Your task to perform on an android device: Search for seafood restaurants on Google Maps Image 0: 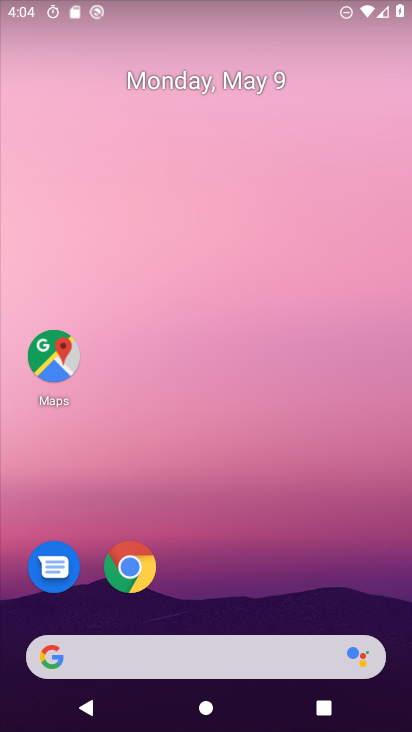
Step 0: click (55, 353)
Your task to perform on an android device: Search for seafood restaurants on Google Maps Image 1: 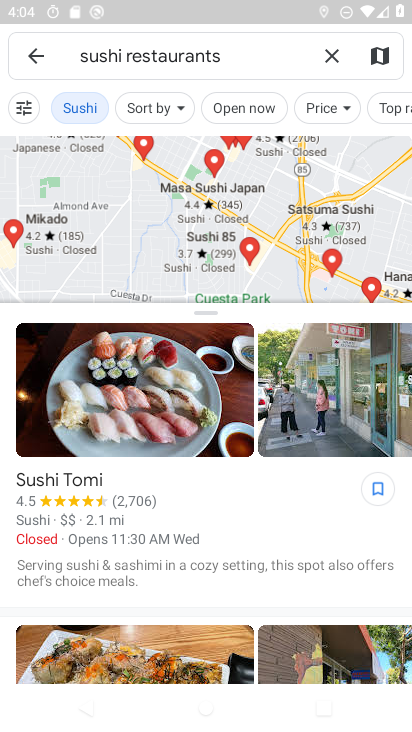
Step 1: click (333, 50)
Your task to perform on an android device: Search for seafood restaurants on Google Maps Image 2: 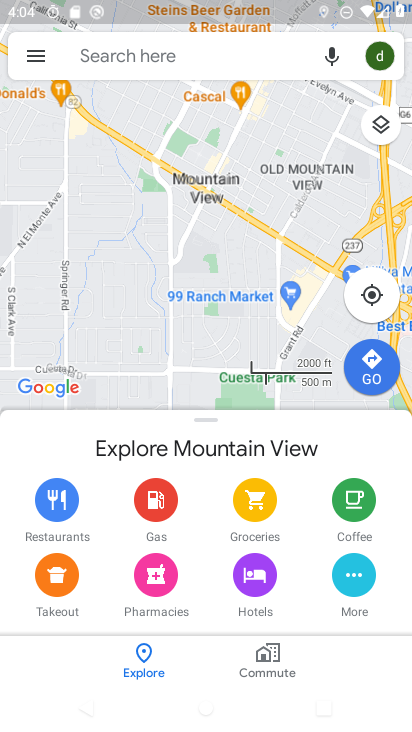
Step 2: click (214, 54)
Your task to perform on an android device: Search for seafood restaurants on Google Maps Image 3: 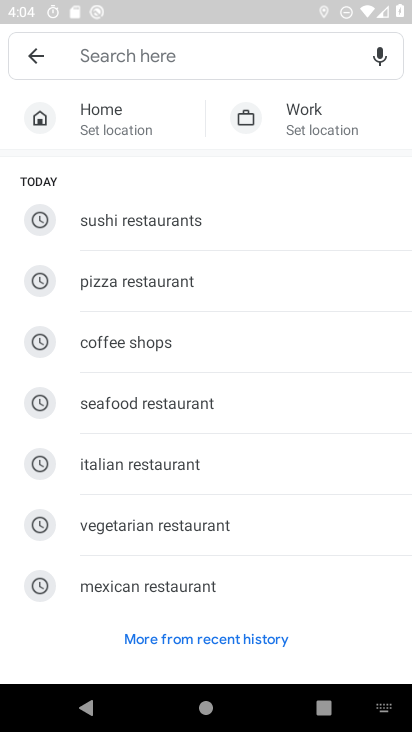
Step 3: click (187, 408)
Your task to perform on an android device: Search for seafood restaurants on Google Maps Image 4: 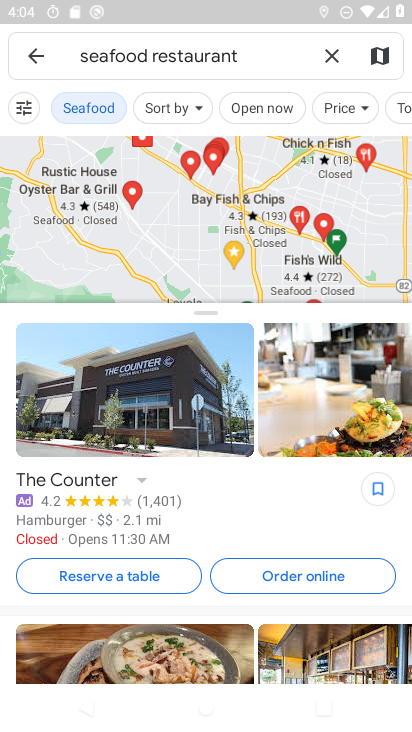
Step 4: task complete